Your task to perform on an android device: Go to Yahoo.com Image 0: 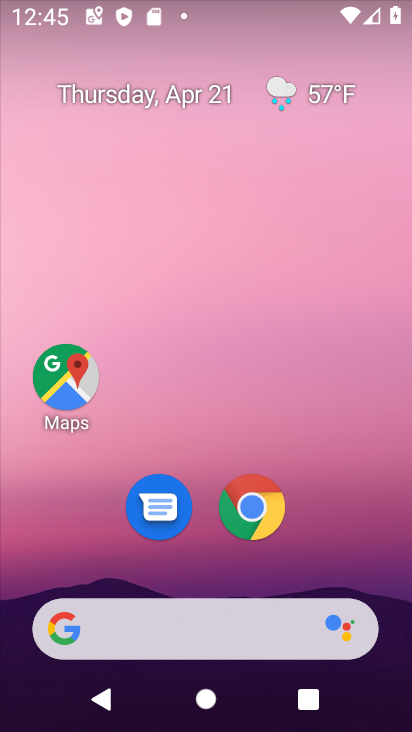
Step 0: drag from (186, 570) to (329, 29)
Your task to perform on an android device: Go to Yahoo.com Image 1: 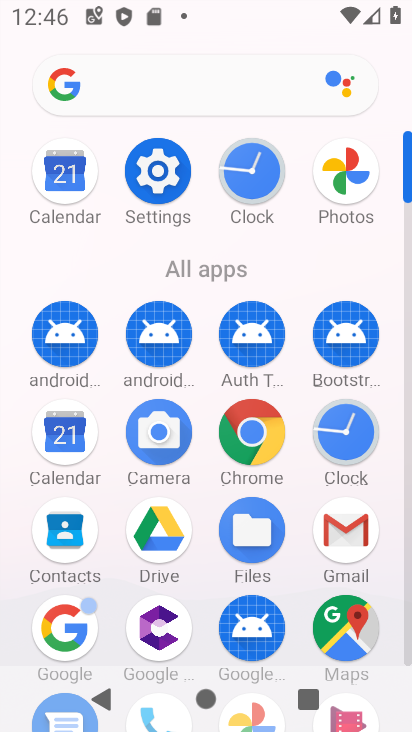
Step 1: click (261, 438)
Your task to perform on an android device: Go to Yahoo.com Image 2: 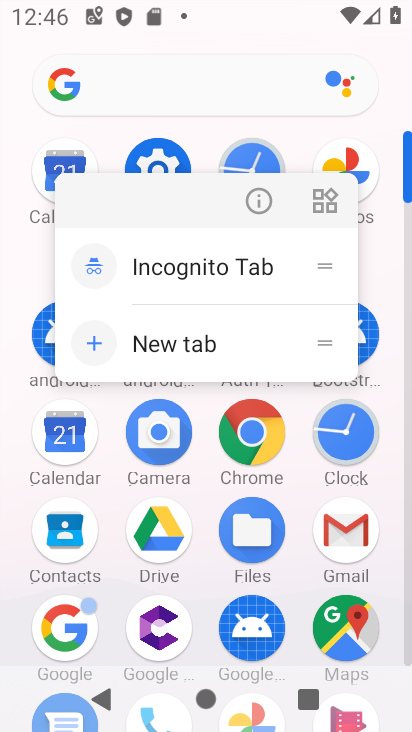
Step 2: click (271, 198)
Your task to perform on an android device: Go to Yahoo.com Image 3: 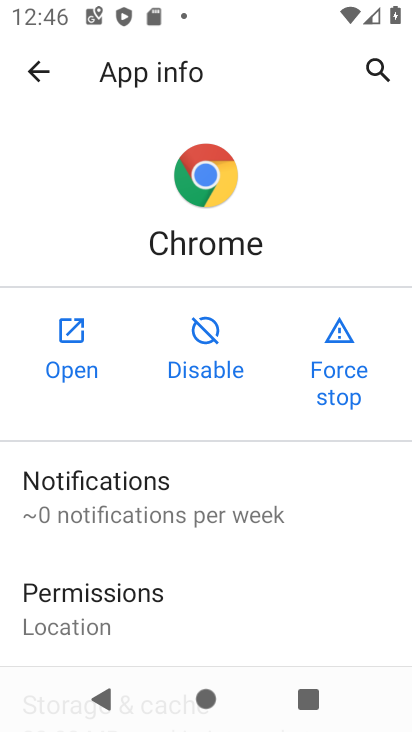
Step 3: click (43, 336)
Your task to perform on an android device: Go to Yahoo.com Image 4: 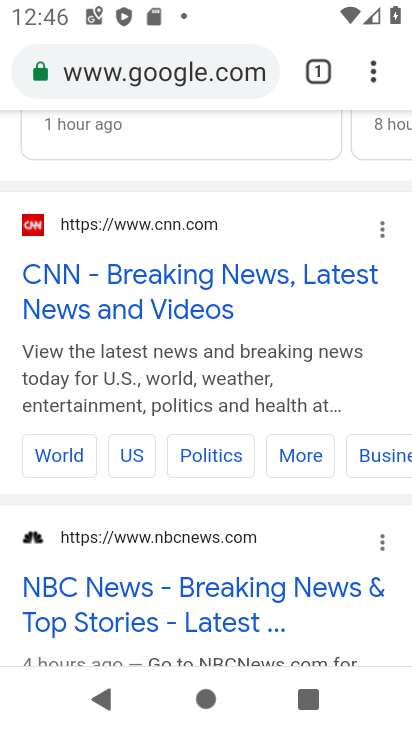
Step 4: drag from (214, 225) to (325, 586)
Your task to perform on an android device: Go to Yahoo.com Image 5: 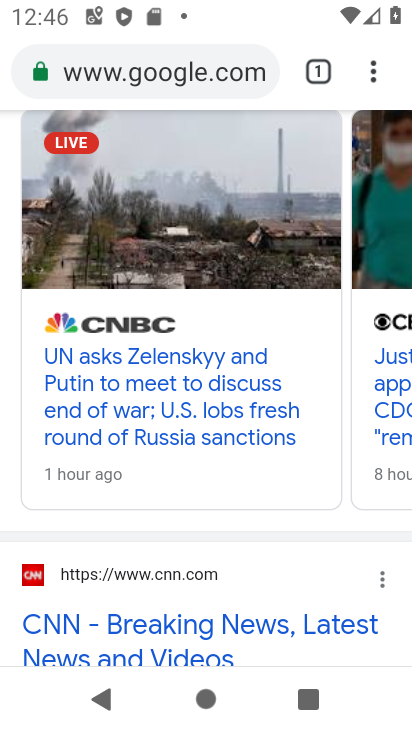
Step 5: click (180, 82)
Your task to perform on an android device: Go to Yahoo.com Image 6: 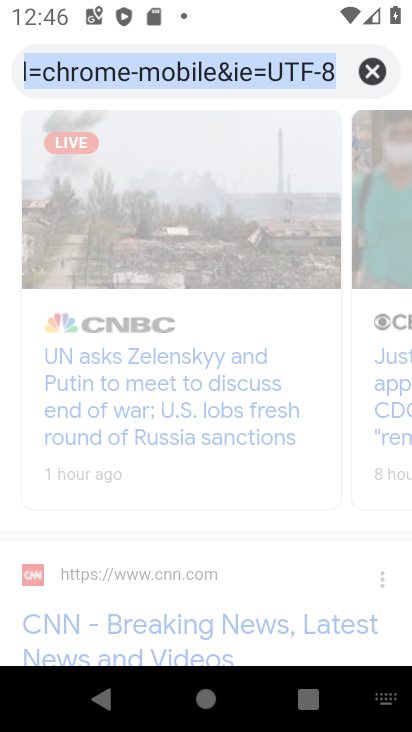
Step 6: click (370, 78)
Your task to perform on an android device: Go to Yahoo.com Image 7: 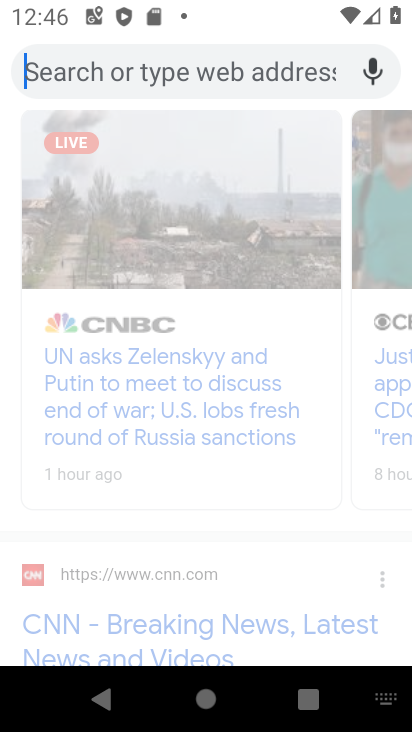
Step 7: type "yahoo.com"
Your task to perform on an android device: Go to Yahoo.com Image 8: 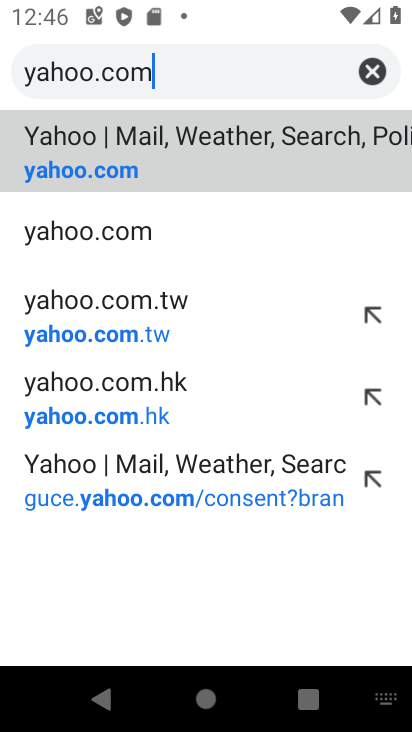
Step 8: click (100, 171)
Your task to perform on an android device: Go to Yahoo.com Image 9: 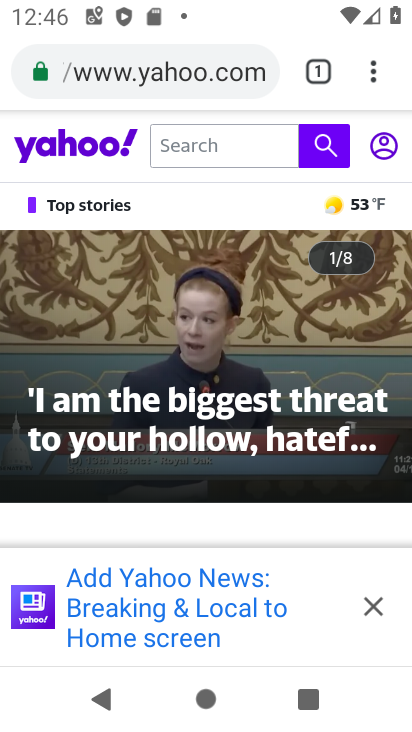
Step 9: task complete